Your task to perform on an android device: Open calendar and show me the first week of next month Image 0: 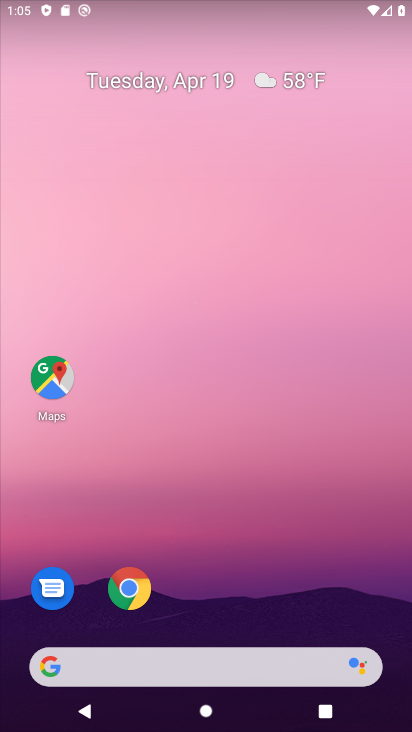
Step 0: drag from (320, 604) to (336, 49)
Your task to perform on an android device: Open calendar and show me the first week of next month Image 1: 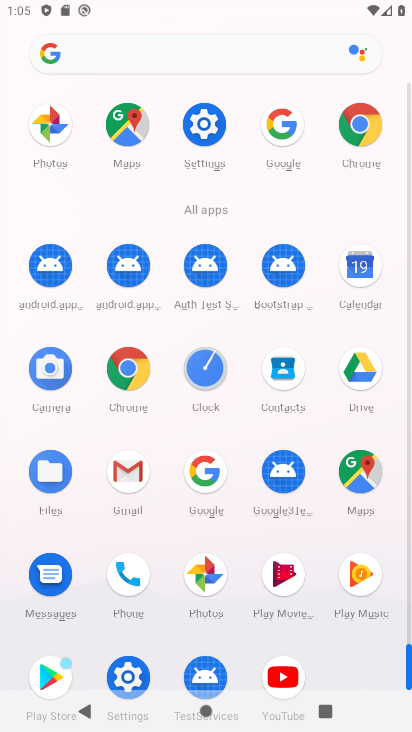
Step 1: click (362, 261)
Your task to perform on an android device: Open calendar and show me the first week of next month Image 2: 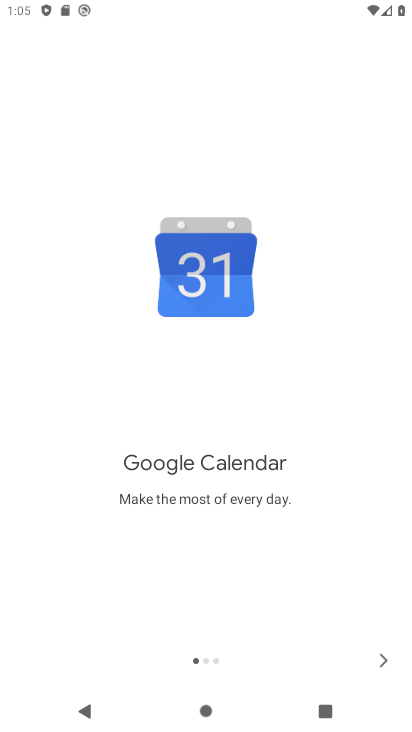
Step 2: click (381, 652)
Your task to perform on an android device: Open calendar and show me the first week of next month Image 3: 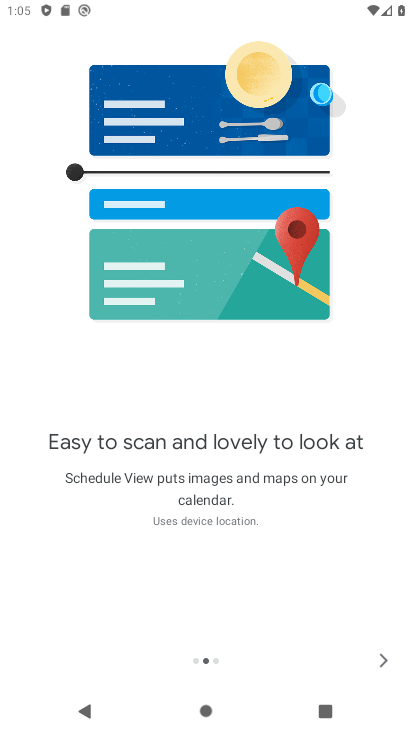
Step 3: click (381, 652)
Your task to perform on an android device: Open calendar and show me the first week of next month Image 4: 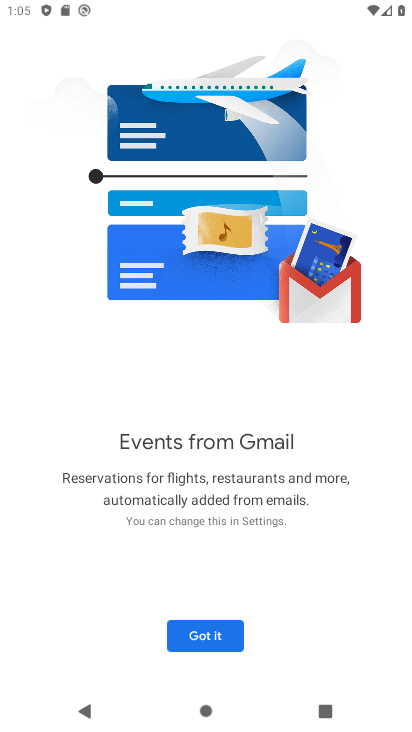
Step 4: click (205, 627)
Your task to perform on an android device: Open calendar and show me the first week of next month Image 5: 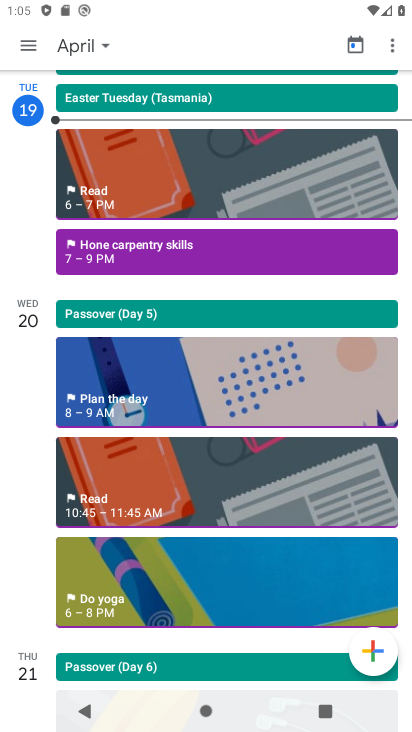
Step 5: click (26, 41)
Your task to perform on an android device: Open calendar and show me the first week of next month Image 6: 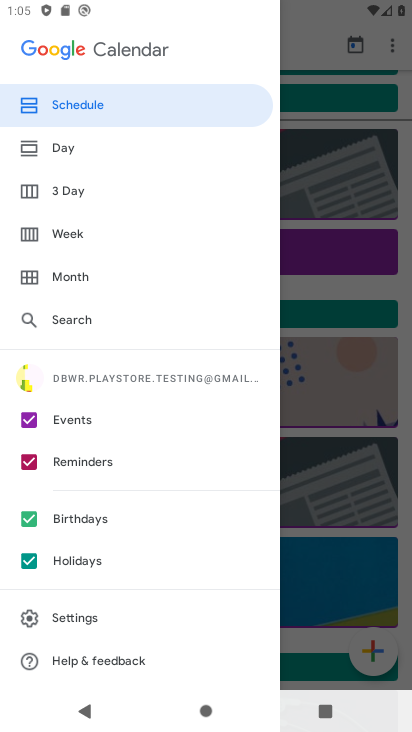
Step 6: click (45, 223)
Your task to perform on an android device: Open calendar and show me the first week of next month Image 7: 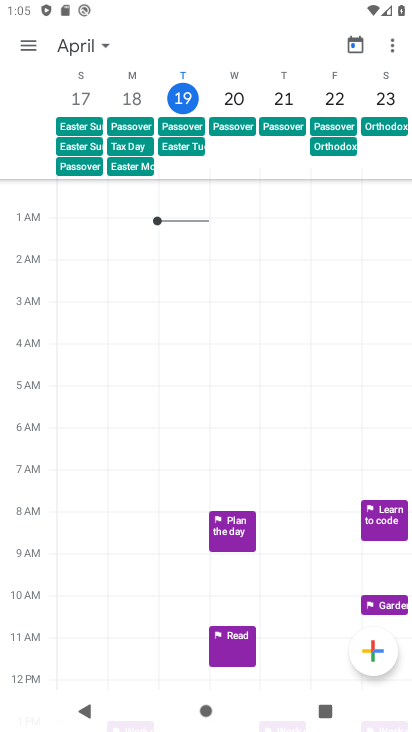
Step 7: task complete